Your task to perform on an android device: set an alarm Image 0: 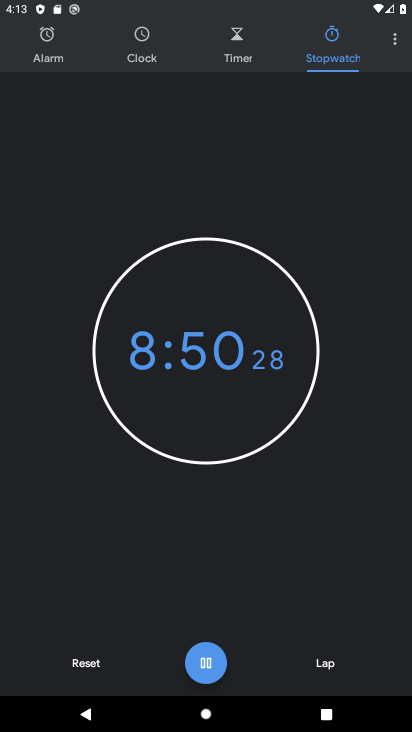
Step 0: click (59, 61)
Your task to perform on an android device: set an alarm Image 1: 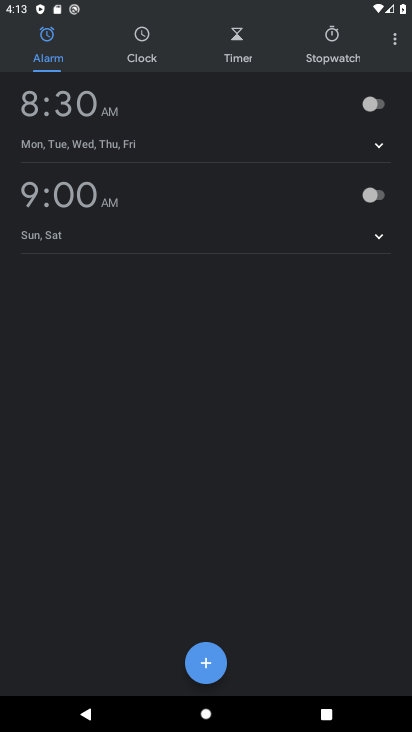
Step 1: click (204, 666)
Your task to perform on an android device: set an alarm Image 2: 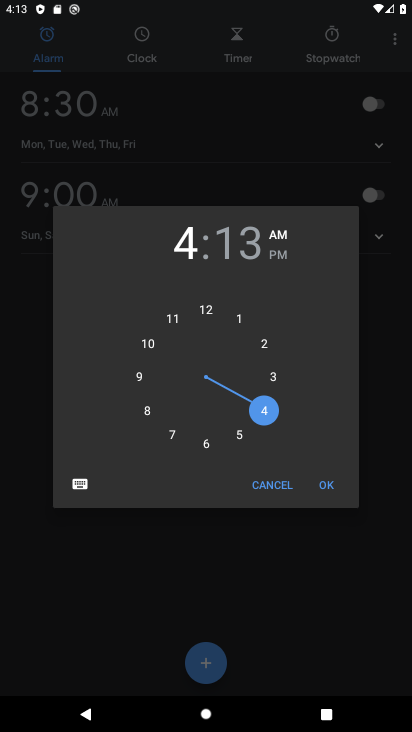
Step 2: click (199, 450)
Your task to perform on an android device: set an alarm Image 3: 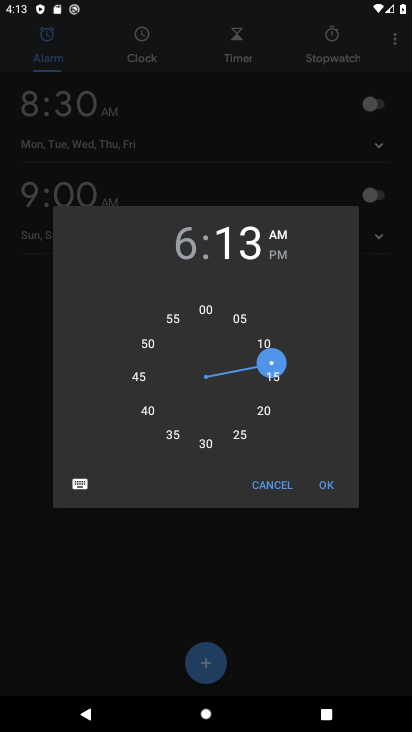
Step 3: click (329, 482)
Your task to perform on an android device: set an alarm Image 4: 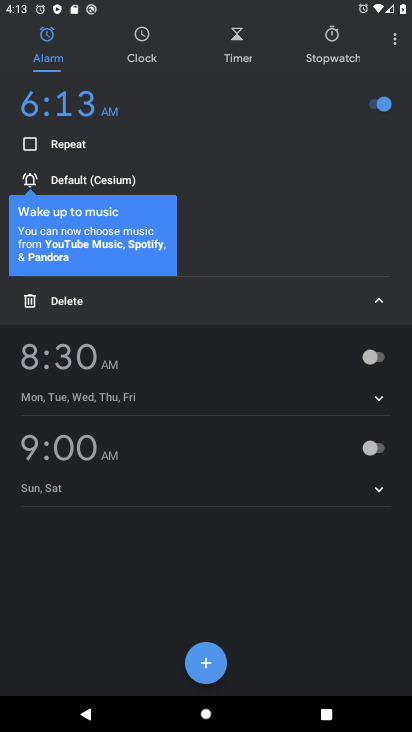
Step 4: click (385, 313)
Your task to perform on an android device: set an alarm Image 5: 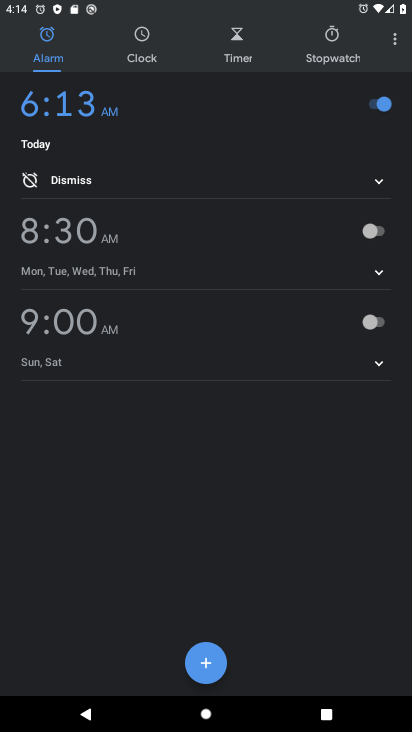
Step 5: task complete